Your task to perform on an android device: change the clock display to digital Image 0: 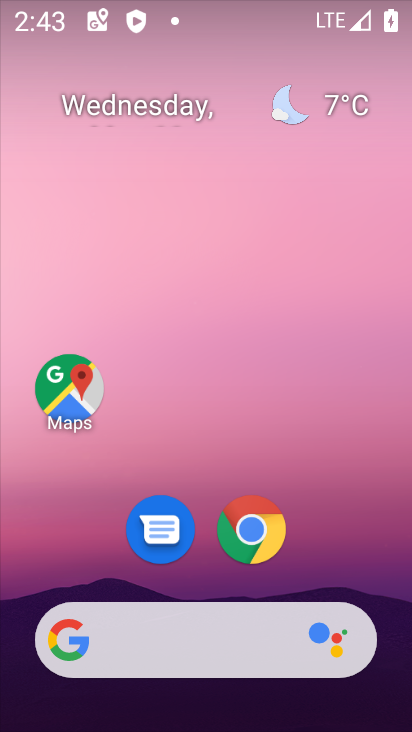
Step 0: drag from (13, 628) to (309, 213)
Your task to perform on an android device: change the clock display to digital Image 1: 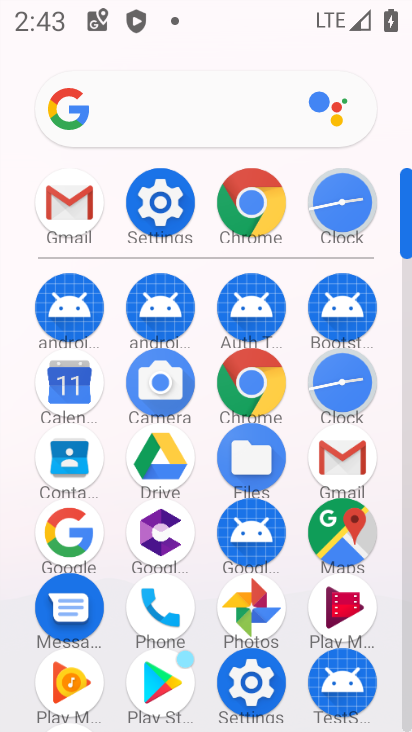
Step 1: click (339, 396)
Your task to perform on an android device: change the clock display to digital Image 2: 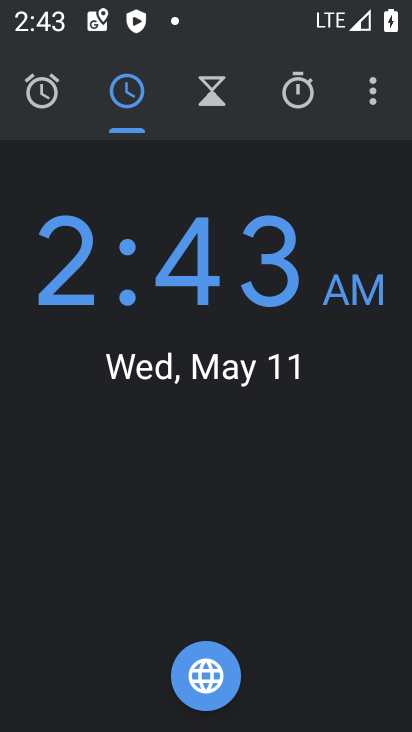
Step 2: click (366, 103)
Your task to perform on an android device: change the clock display to digital Image 3: 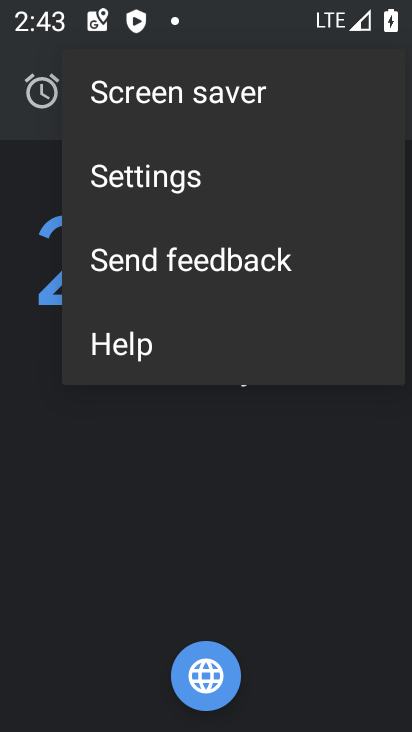
Step 3: click (247, 161)
Your task to perform on an android device: change the clock display to digital Image 4: 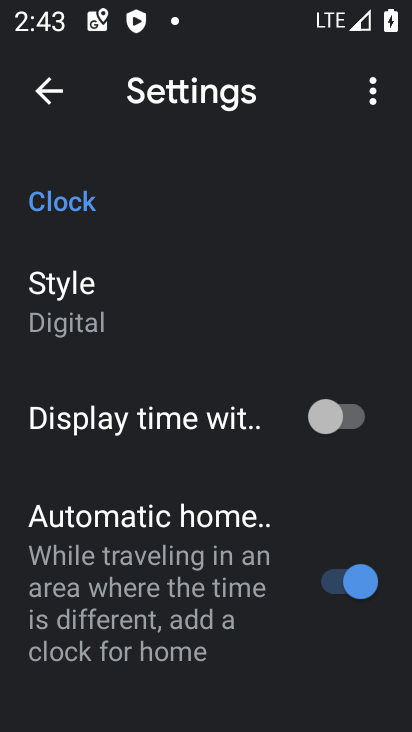
Step 4: task complete